Your task to perform on an android device: check android version Image 0: 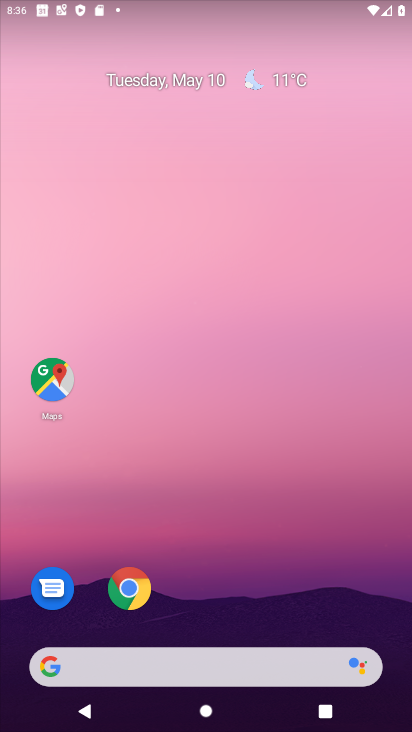
Step 0: drag from (181, 619) to (135, 111)
Your task to perform on an android device: check android version Image 1: 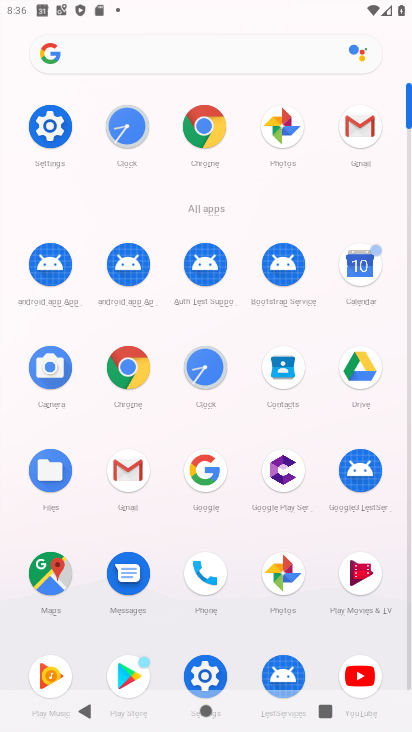
Step 1: click (45, 126)
Your task to perform on an android device: check android version Image 2: 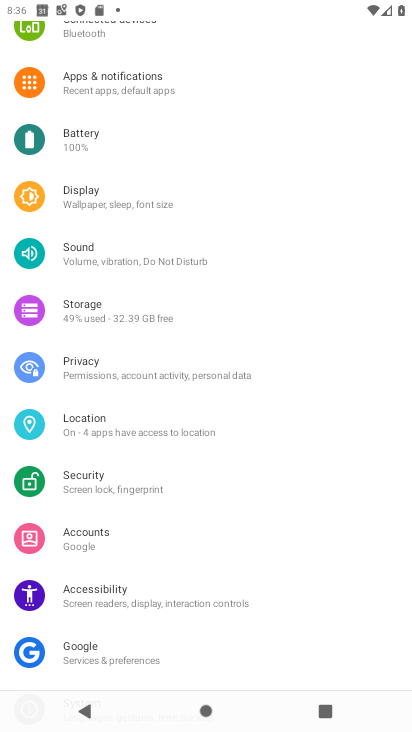
Step 2: drag from (86, 658) to (120, 317)
Your task to perform on an android device: check android version Image 3: 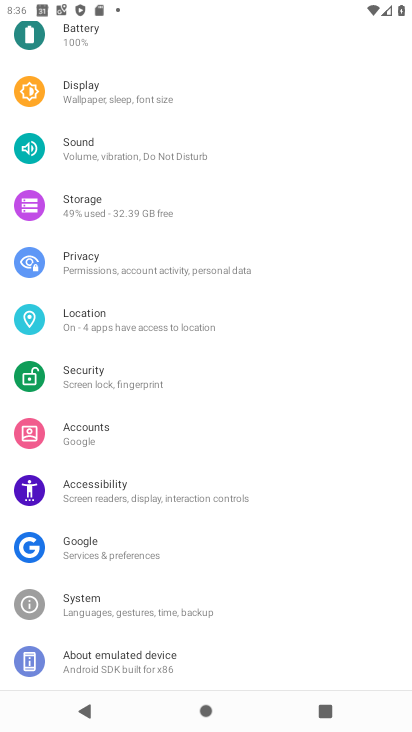
Step 3: click (102, 672)
Your task to perform on an android device: check android version Image 4: 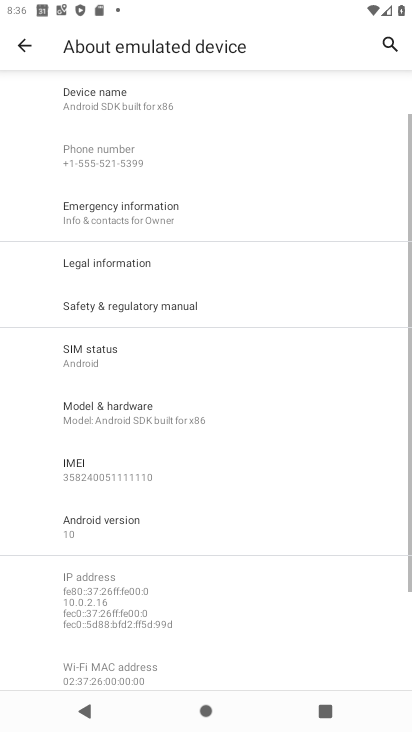
Step 4: drag from (102, 672) to (198, 193)
Your task to perform on an android device: check android version Image 5: 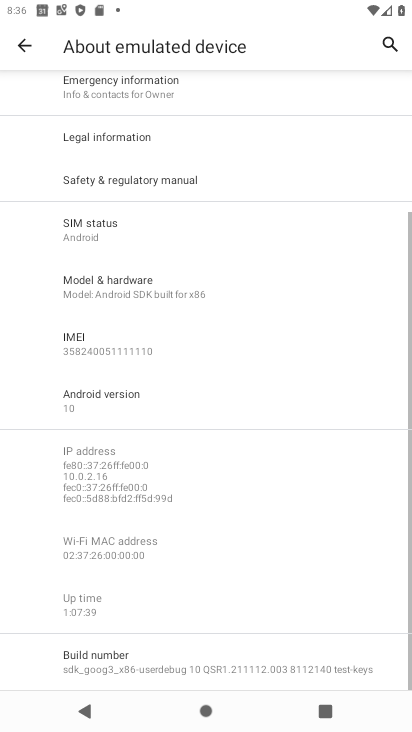
Step 5: click (129, 405)
Your task to perform on an android device: check android version Image 6: 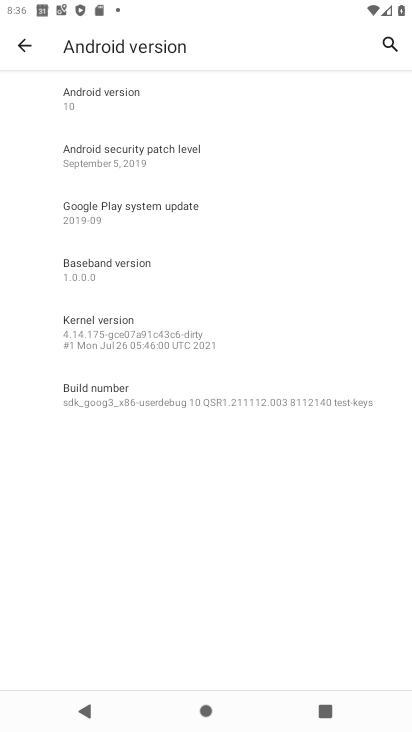
Step 6: click (153, 99)
Your task to perform on an android device: check android version Image 7: 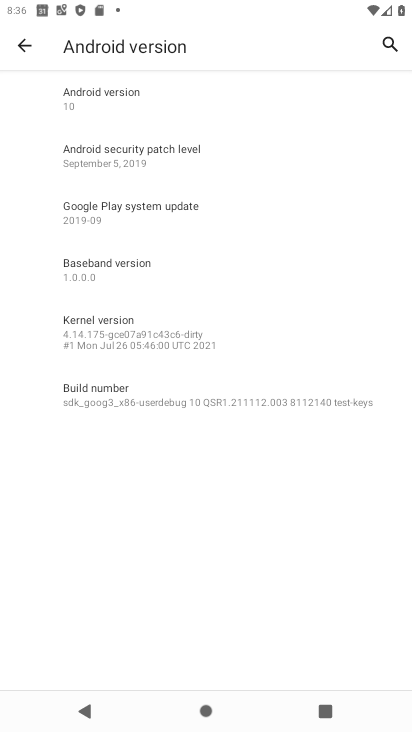
Step 7: task complete